Your task to perform on an android device: turn on bluetooth scan Image 0: 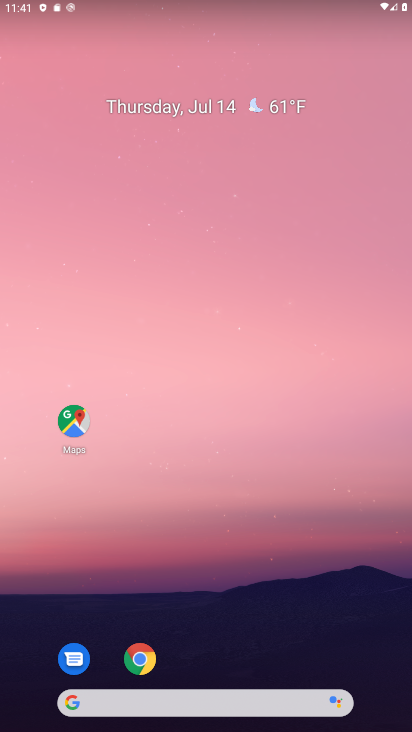
Step 0: drag from (240, 705) to (221, 239)
Your task to perform on an android device: turn on bluetooth scan Image 1: 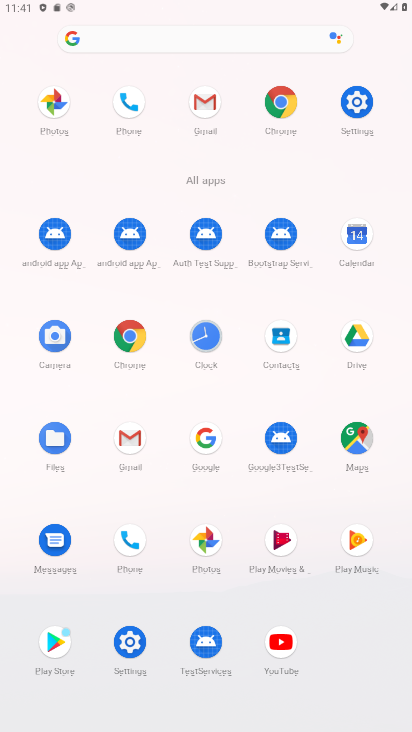
Step 1: click (356, 100)
Your task to perform on an android device: turn on bluetooth scan Image 2: 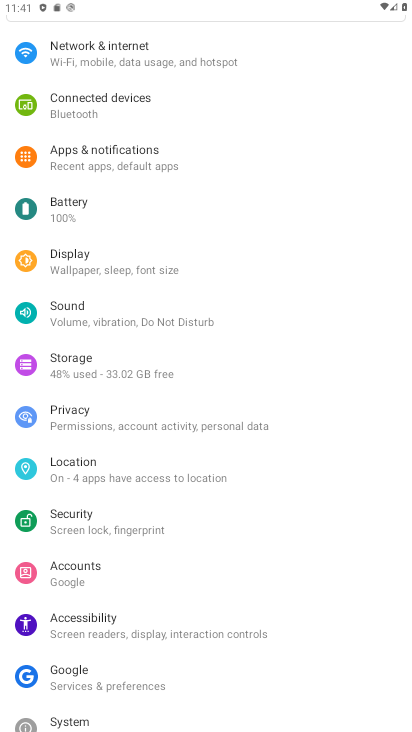
Step 2: click (90, 472)
Your task to perform on an android device: turn on bluetooth scan Image 3: 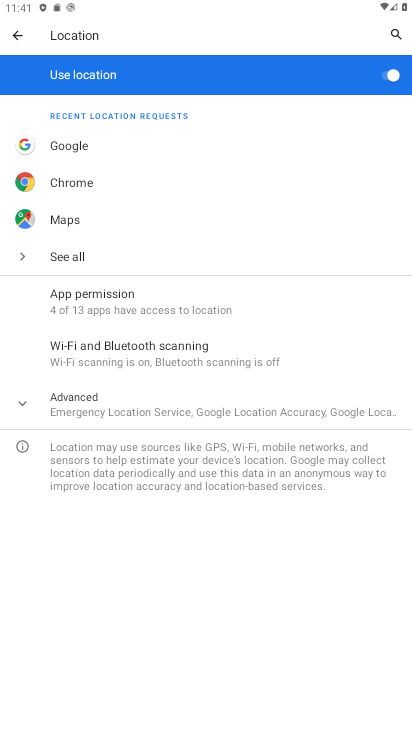
Step 3: click (129, 354)
Your task to perform on an android device: turn on bluetooth scan Image 4: 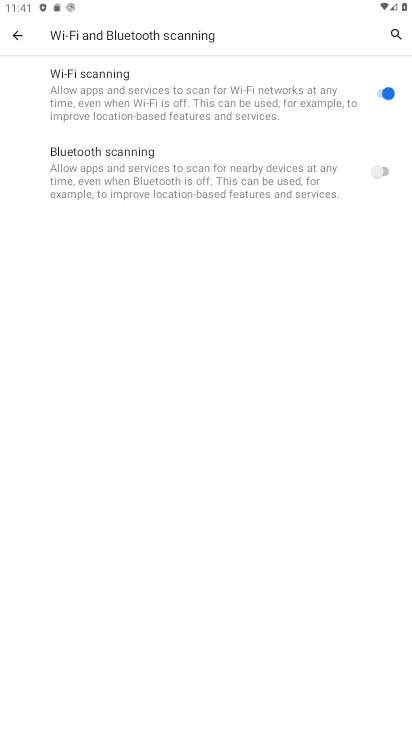
Step 4: click (380, 167)
Your task to perform on an android device: turn on bluetooth scan Image 5: 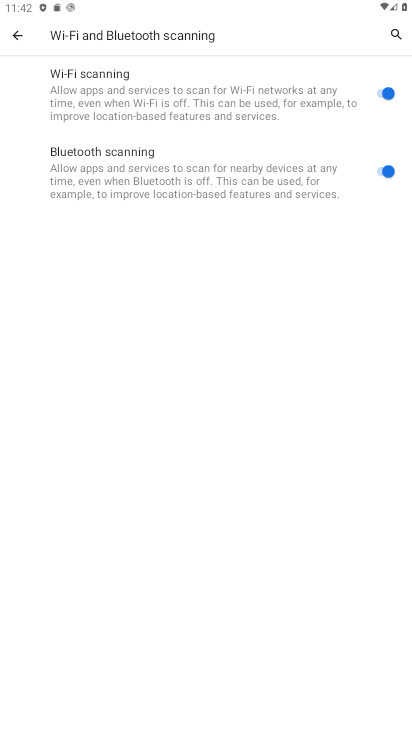
Step 5: task complete